Your task to perform on an android device: refresh tabs in the chrome app Image 0: 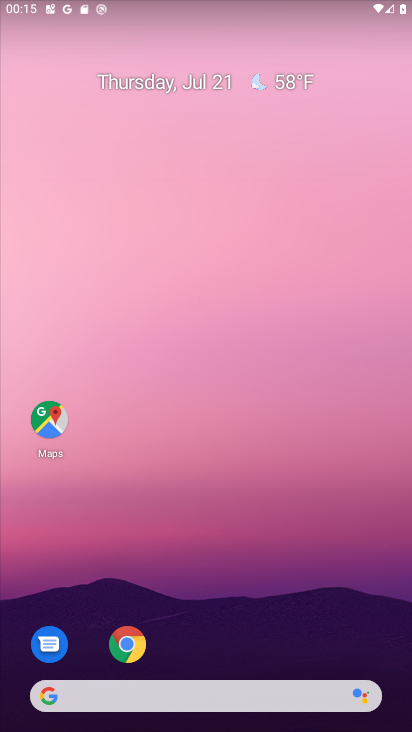
Step 0: click (116, 639)
Your task to perform on an android device: refresh tabs in the chrome app Image 1: 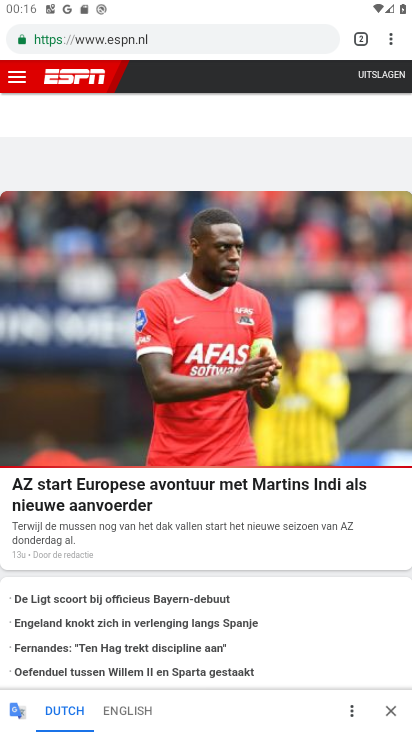
Step 1: click (391, 38)
Your task to perform on an android device: refresh tabs in the chrome app Image 2: 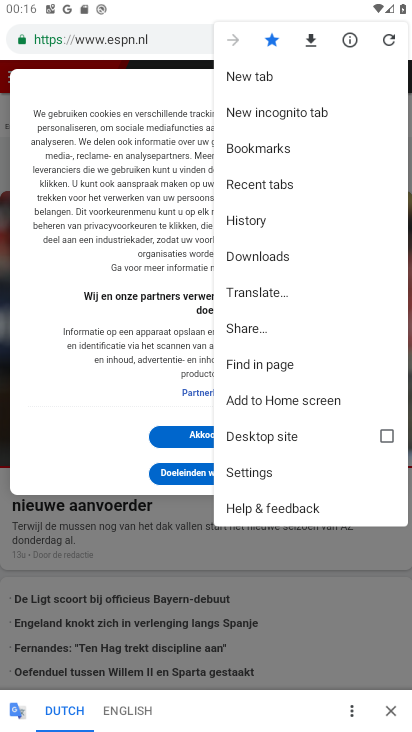
Step 2: click (391, 37)
Your task to perform on an android device: refresh tabs in the chrome app Image 3: 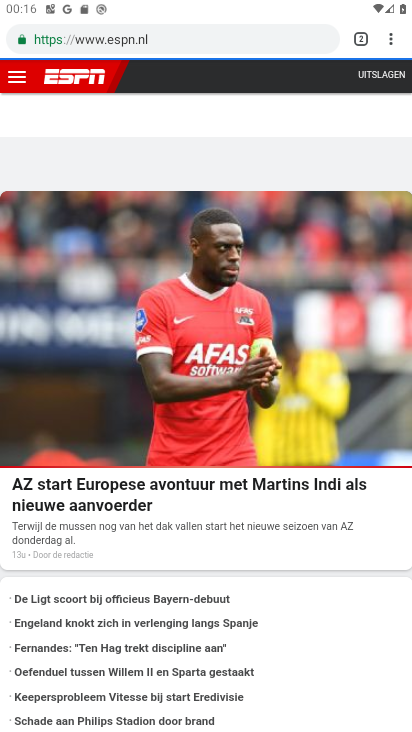
Step 3: task complete